Your task to perform on an android device: Go to battery settings Image 0: 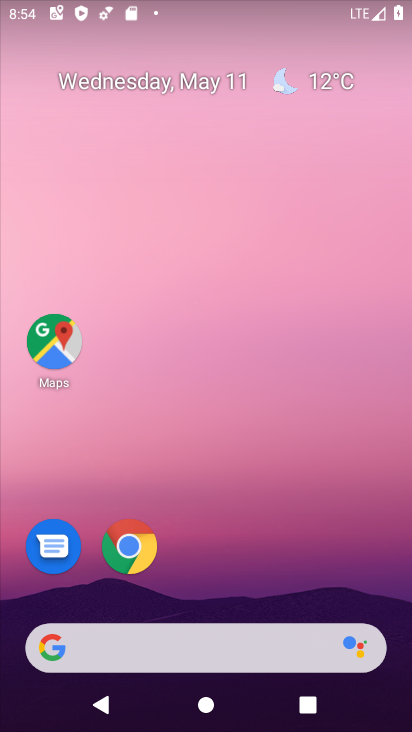
Step 0: drag from (391, 628) to (305, 82)
Your task to perform on an android device: Go to battery settings Image 1: 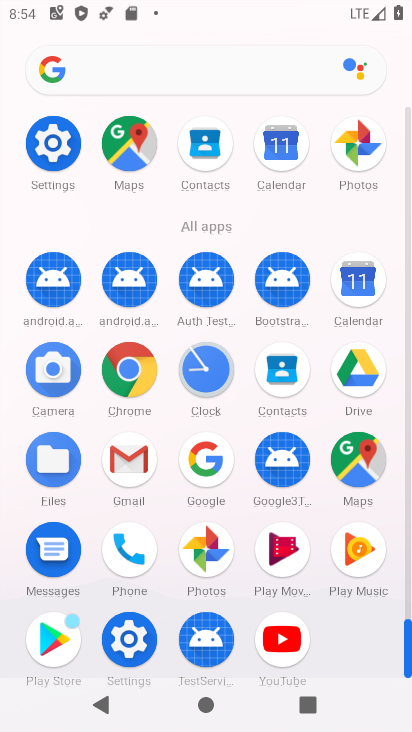
Step 1: click (128, 638)
Your task to perform on an android device: Go to battery settings Image 2: 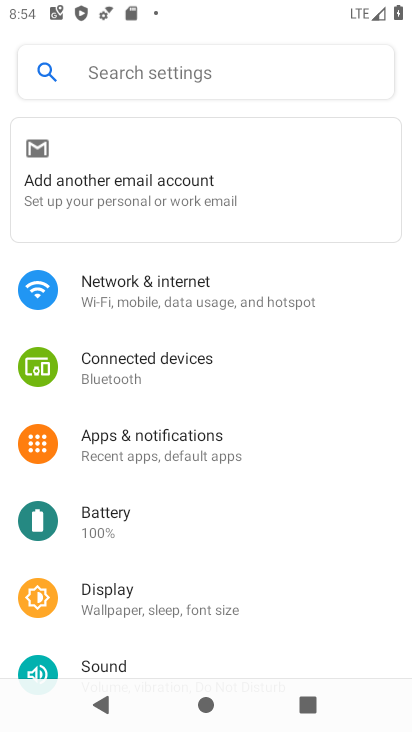
Step 2: click (98, 507)
Your task to perform on an android device: Go to battery settings Image 3: 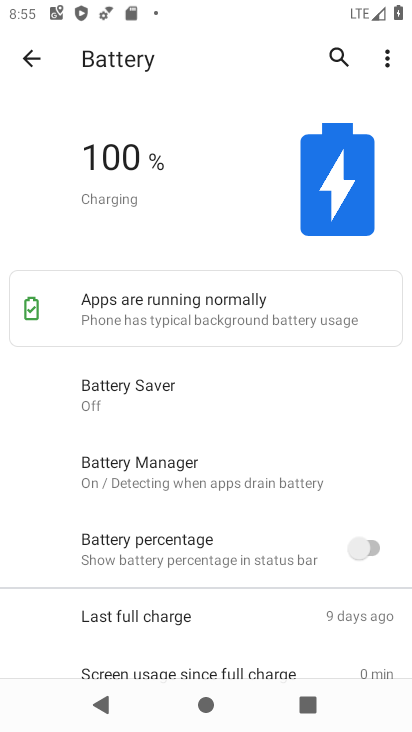
Step 3: task complete